Your task to perform on an android device: Show me popular videos on Youtube Image 0: 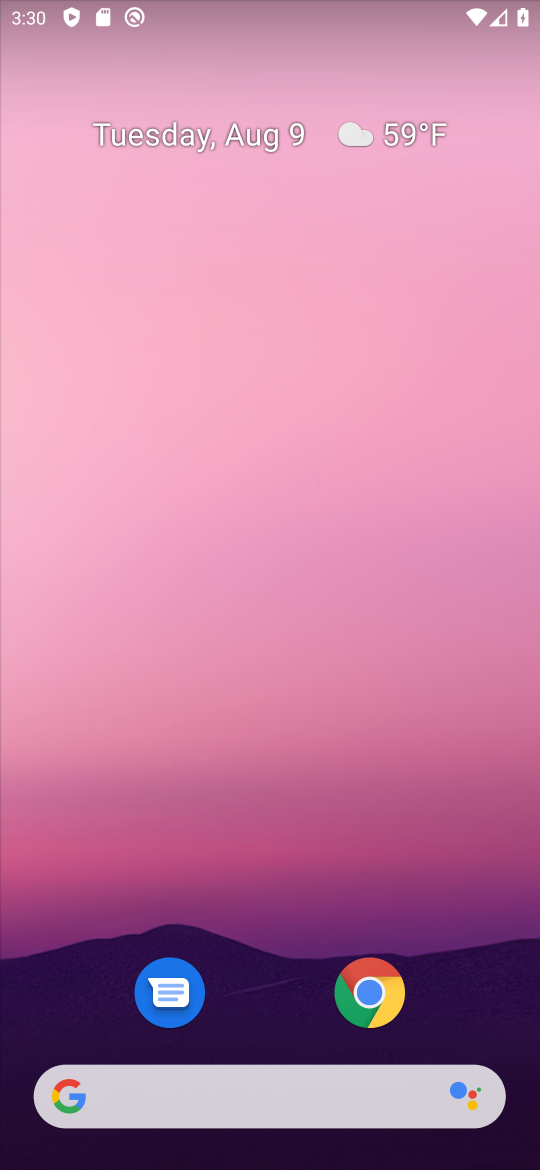
Step 0: drag from (261, 1047) to (378, 91)
Your task to perform on an android device: Show me popular videos on Youtube Image 1: 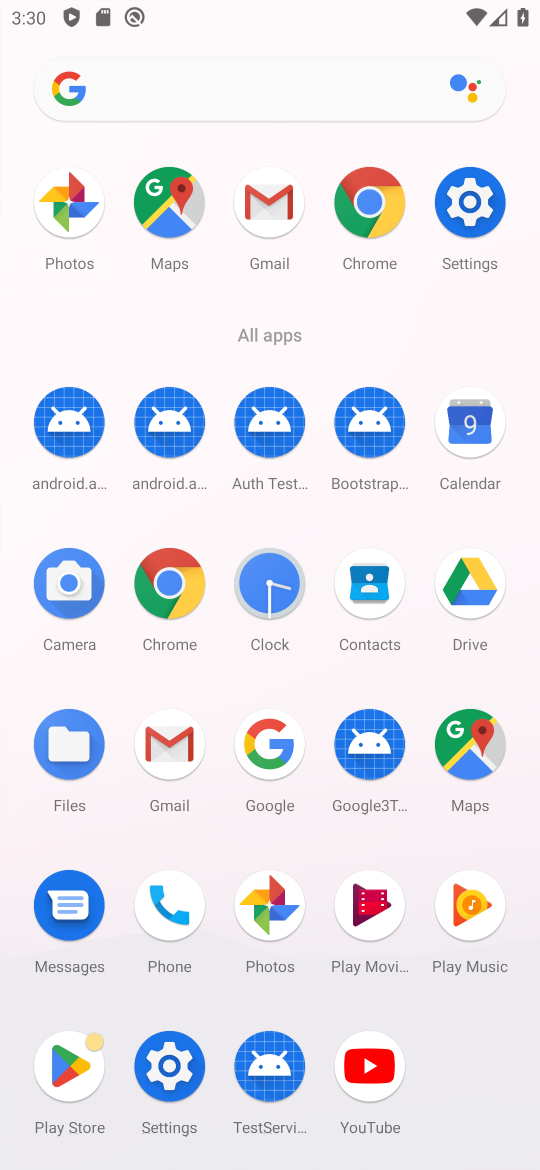
Step 1: click (384, 1049)
Your task to perform on an android device: Show me popular videos on Youtube Image 2: 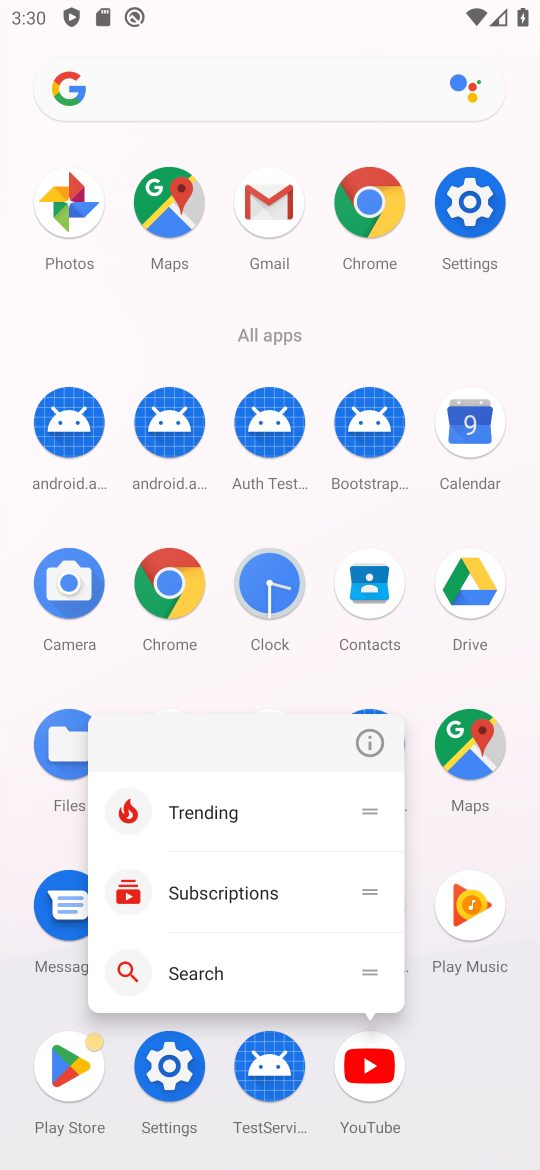
Step 2: click (374, 1083)
Your task to perform on an android device: Show me popular videos on Youtube Image 3: 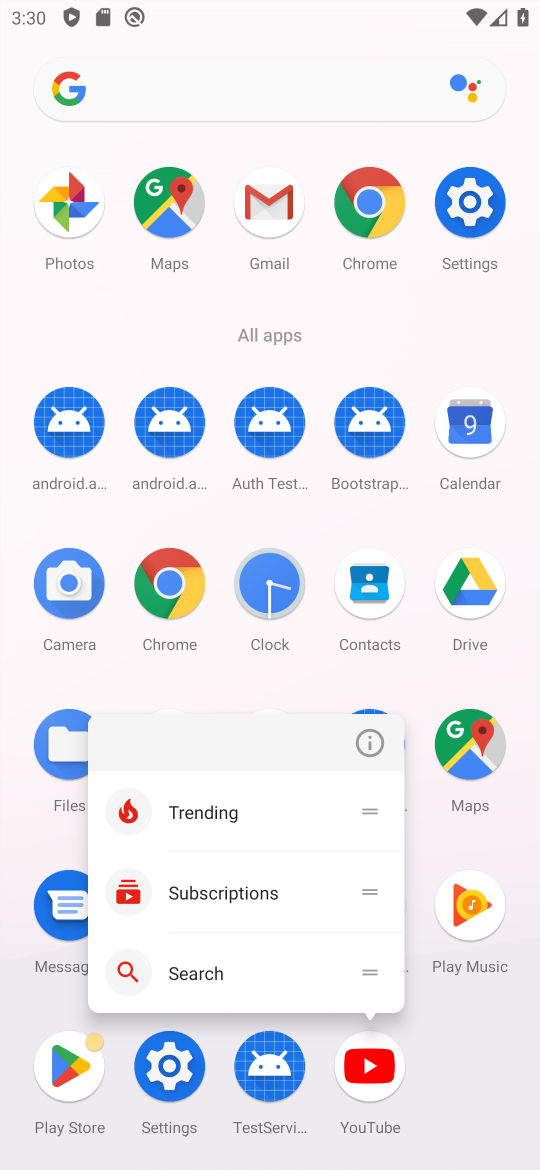
Step 3: click (353, 1053)
Your task to perform on an android device: Show me popular videos on Youtube Image 4: 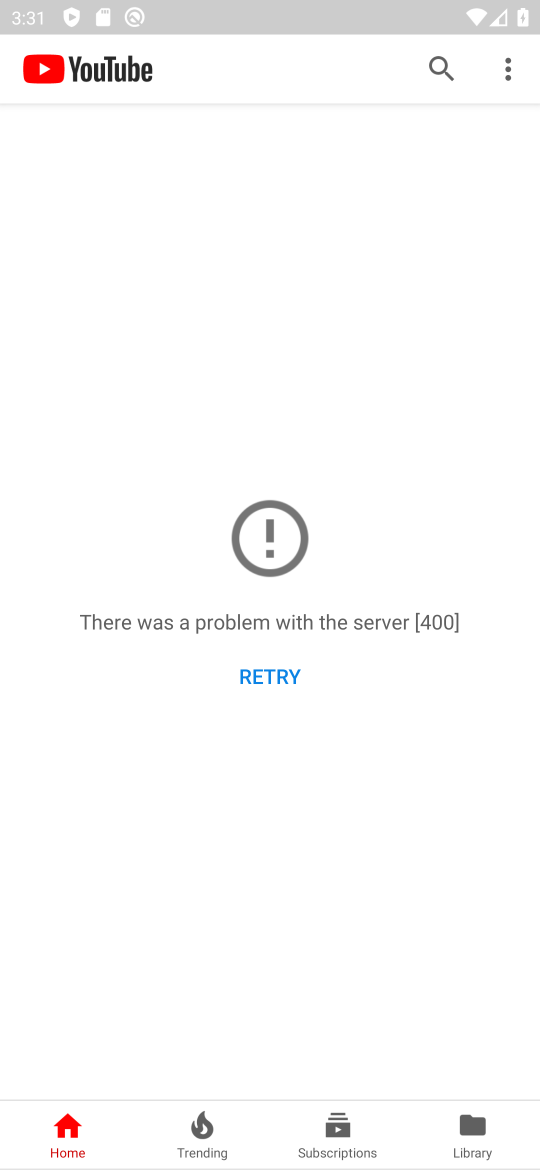
Step 4: task complete